Your task to perform on an android device: Show me popular games on the Play Store Image 0: 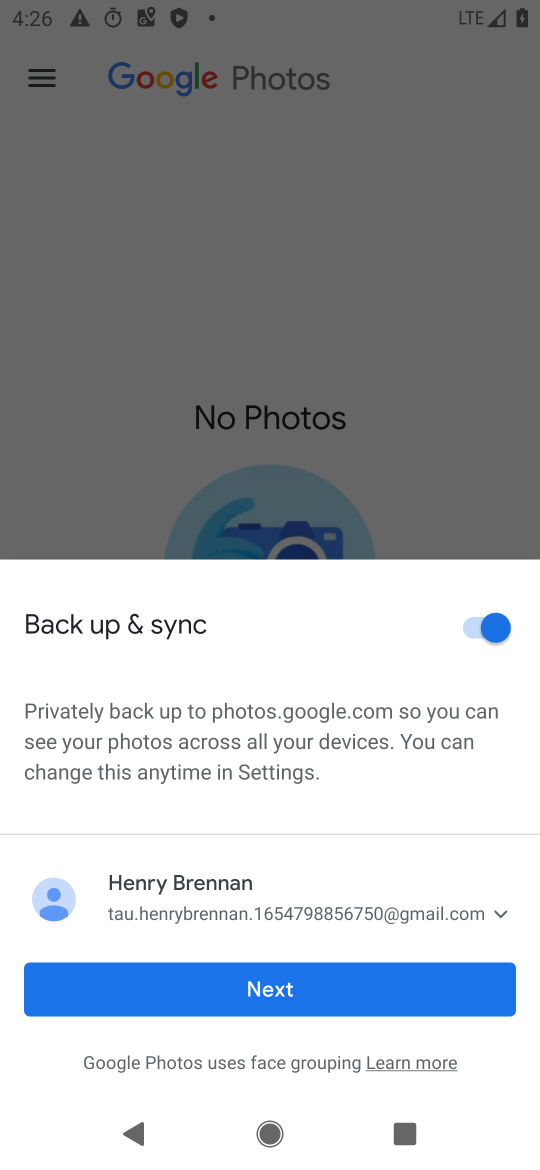
Step 0: press home button
Your task to perform on an android device: Show me popular games on the Play Store Image 1: 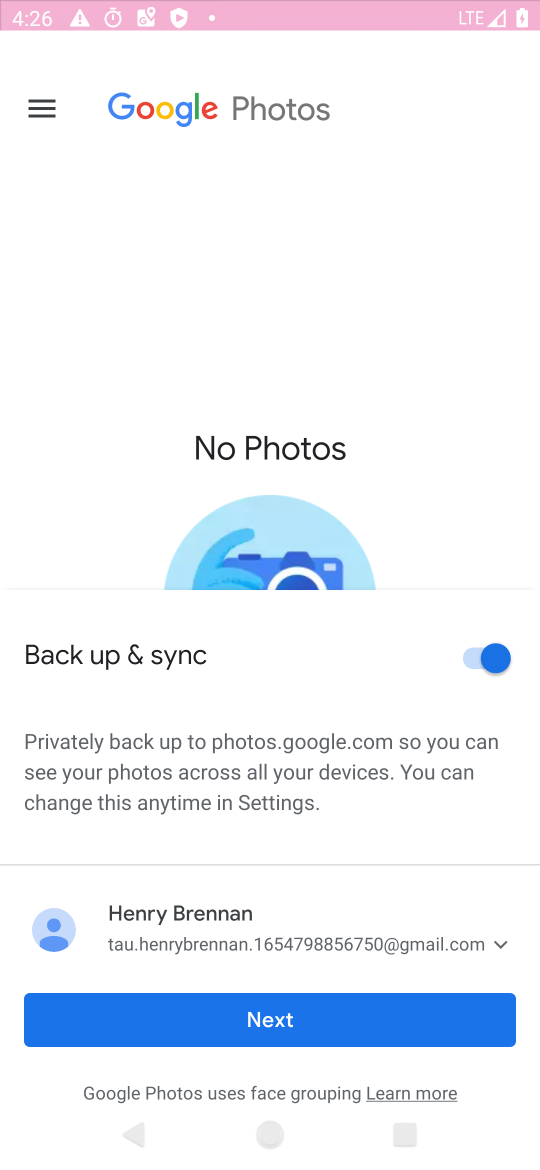
Step 1: press home button
Your task to perform on an android device: Show me popular games on the Play Store Image 2: 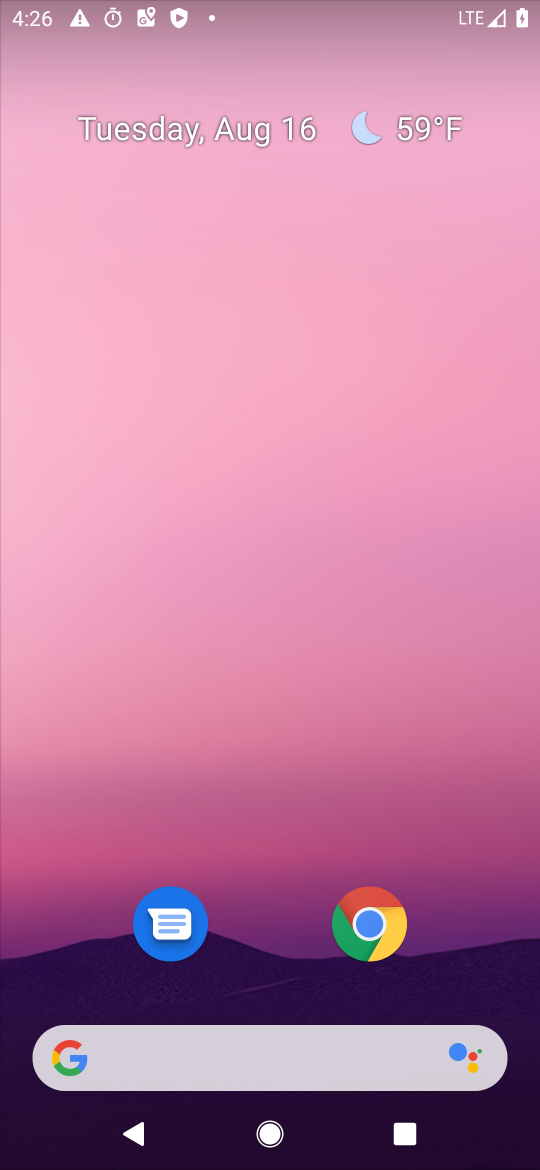
Step 2: drag from (263, 1002) to (260, 170)
Your task to perform on an android device: Show me popular games on the Play Store Image 3: 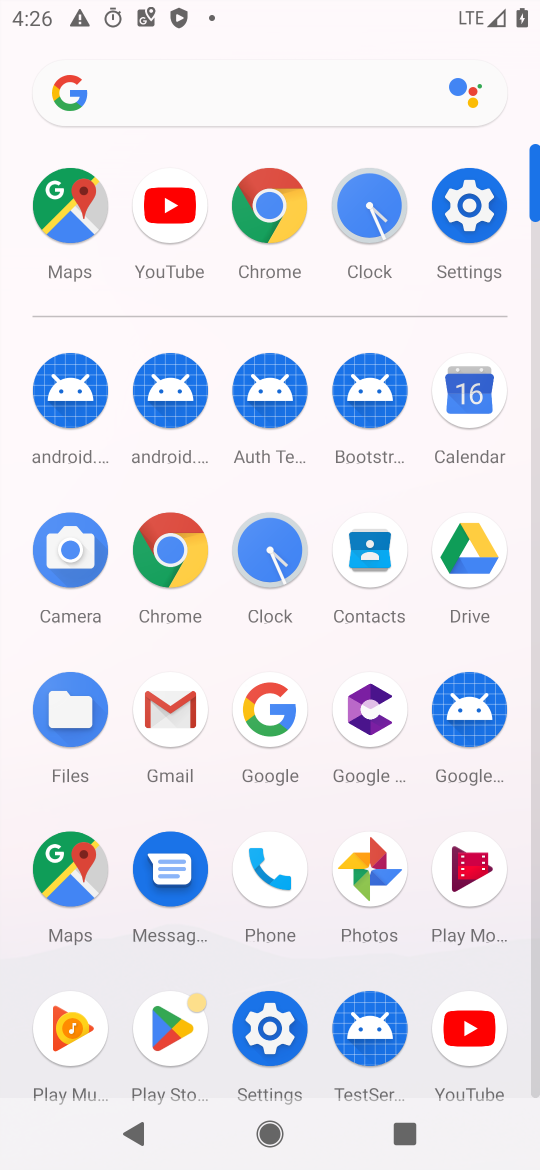
Step 3: click (179, 1021)
Your task to perform on an android device: Show me popular games on the Play Store Image 4: 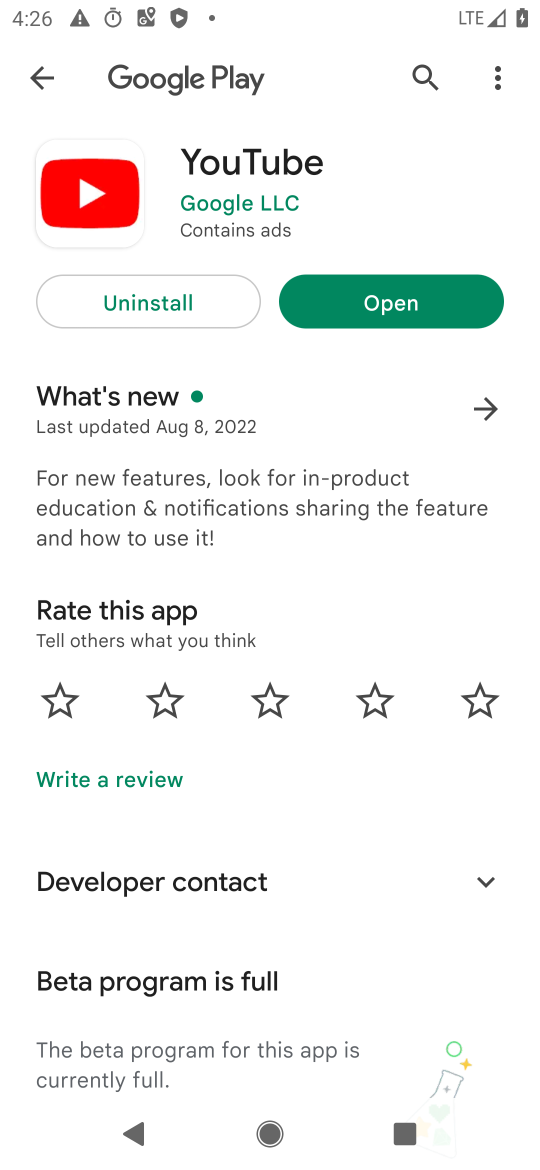
Step 4: click (43, 77)
Your task to perform on an android device: Show me popular games on the Play Store Image 5: 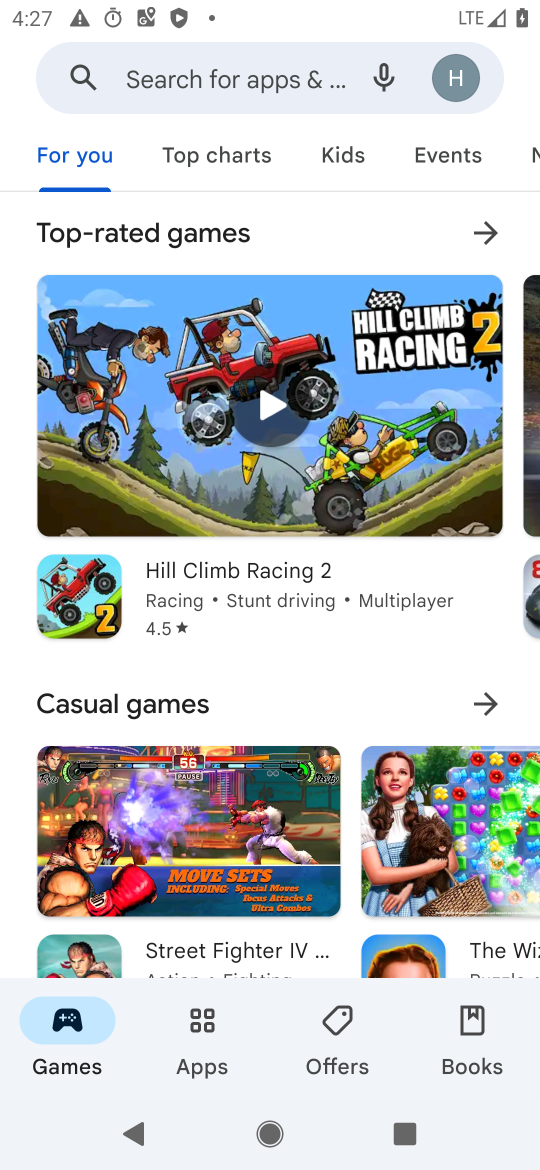
Step 5: click (233, 167)
Your task to perform on an android device: Show me popular games on the Play Store Image 6: 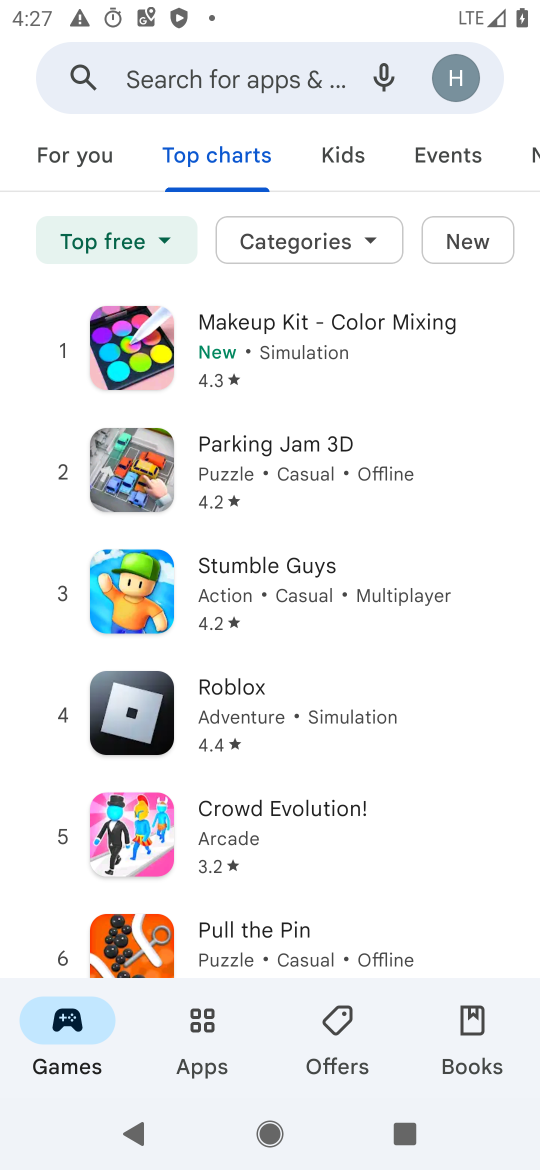
Step 6: task complete